Your task to perform on an android device: Go to calendar. Show me events next week Image 0: 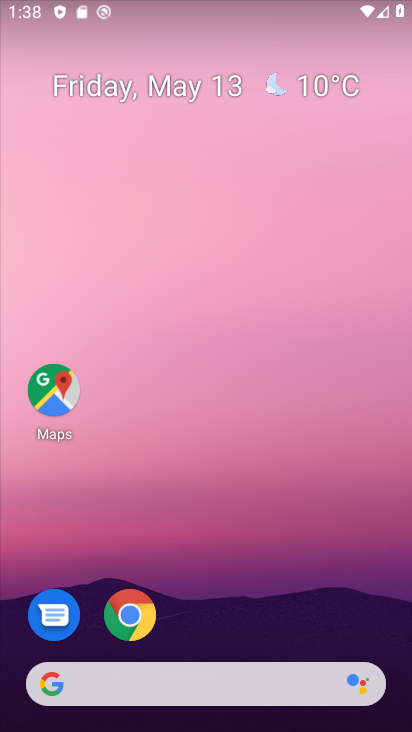
Step 0: drag from (201, 627) to (105, 218)
Your task to perform on an android device: Go to calendar. Show me events next week Image 1: 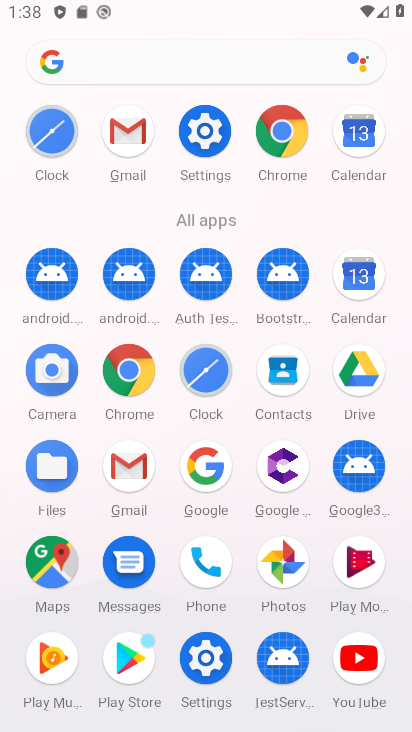
Step 1: click (364, 277)
Your task to perform on an android device: Go to calendar. Show me events next week Image 2: 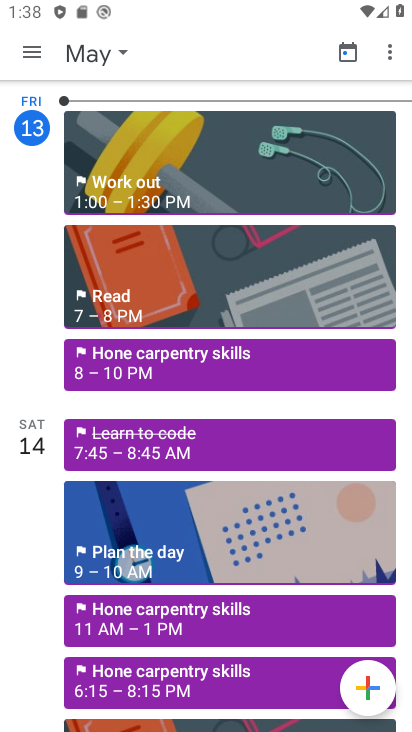
Step 2: click (96, 60)
Your task to perform on an android device: Go to calendar. Show me events next week Image 3: 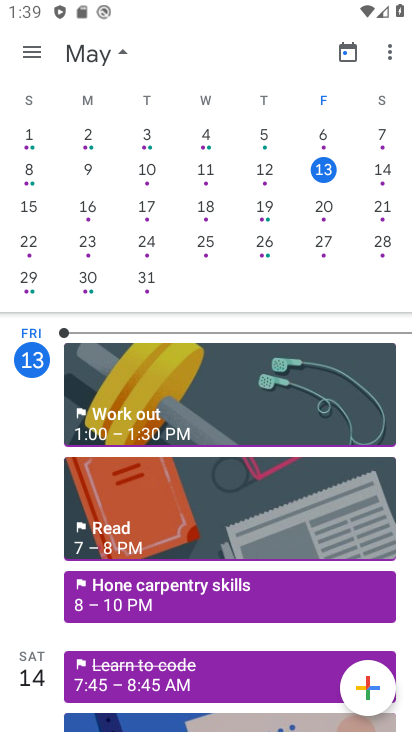
Step 3: click (29, 210)
Your task to perform on an android device: Go to calendar. Show me events next week Image 4: 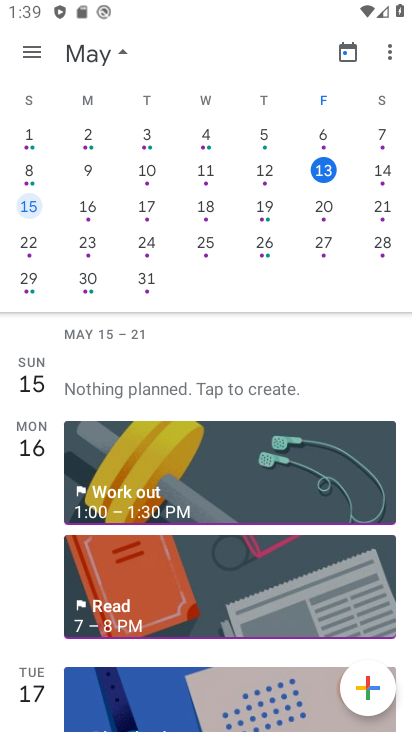
Step 4: click (94, 57)
Your task to perform on an android device: Go to calendar. Show me events next week Image 5: 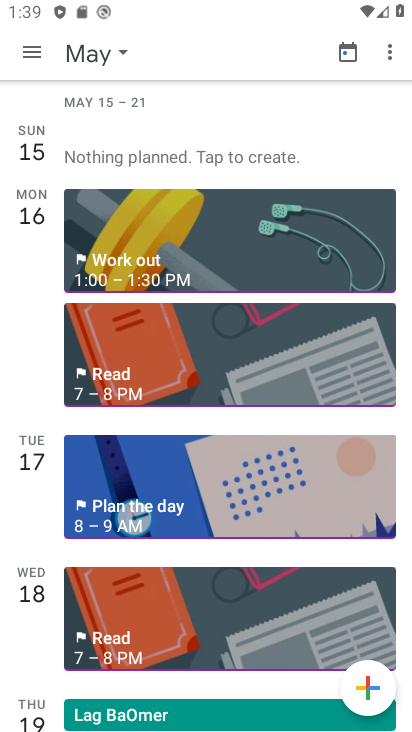
Step 5: task complete